Your task to perform on an android device: Find coffee shops on Maps Image 0: 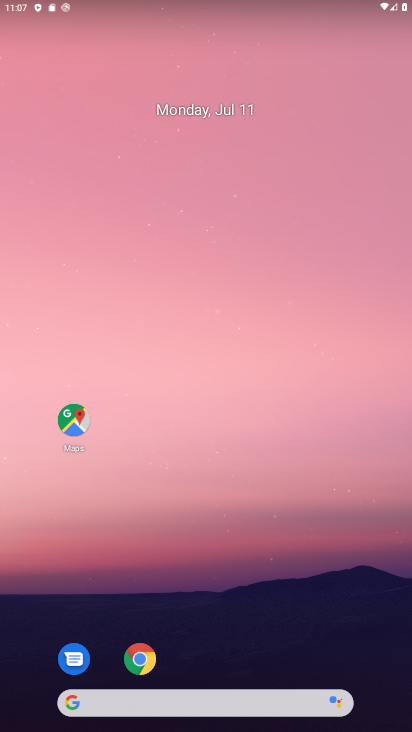
Step 0: drag from (284, 638) to (164, 3)
Your task to perform on an android device: Find coffee shops on Maps Image 1: 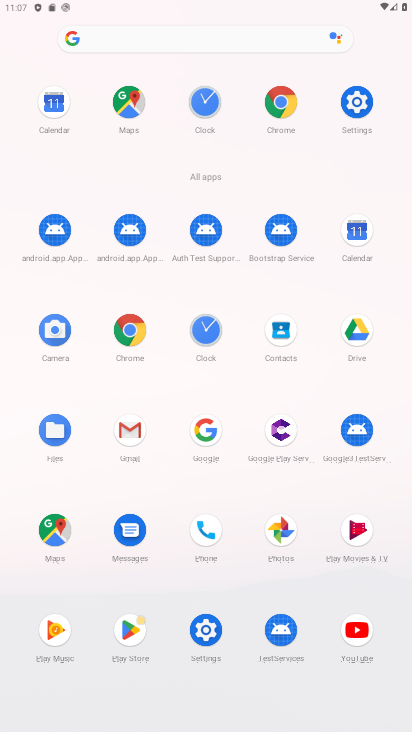
Step 1: click (54, 531)
Your task to perform on an android device: Find coffee shops on Maps Image 2: 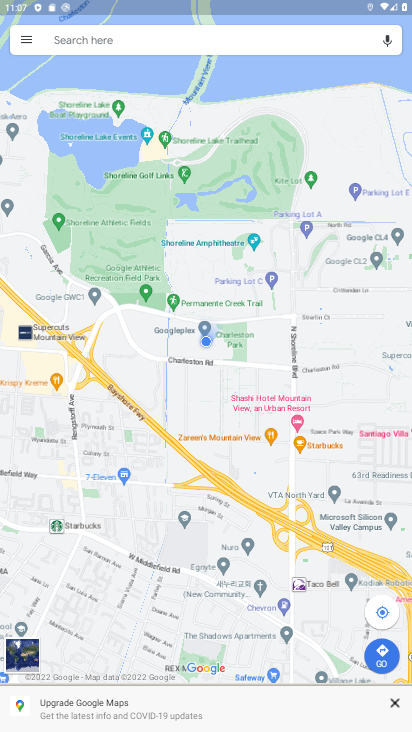
Step 2: click (212, 41)
Your task to perform on an android device: Find coffee shops on Maps Image 3: 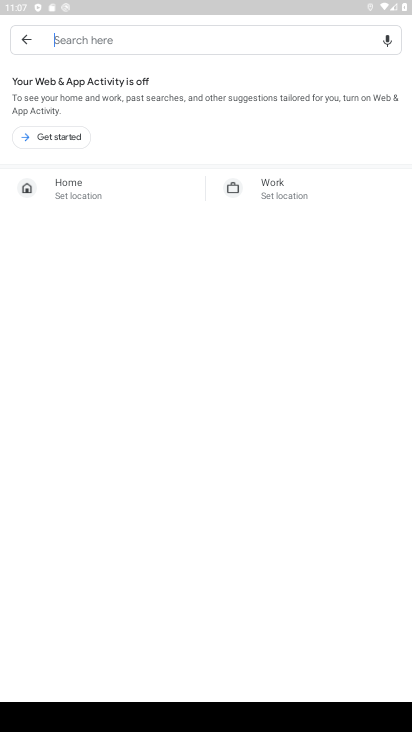
Step 3: type "coffee"
Your task to perform on an android device: Find coffee shops on Maps Image 4: 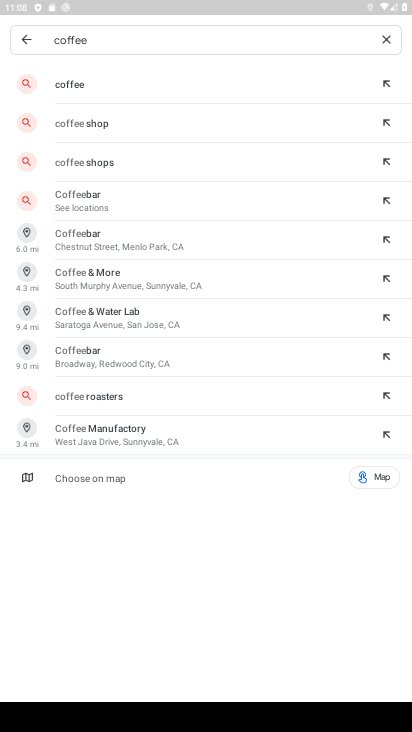
Step 4: press enter
Your task to perform on an android device: Find coffee shops on Maps Image 5: 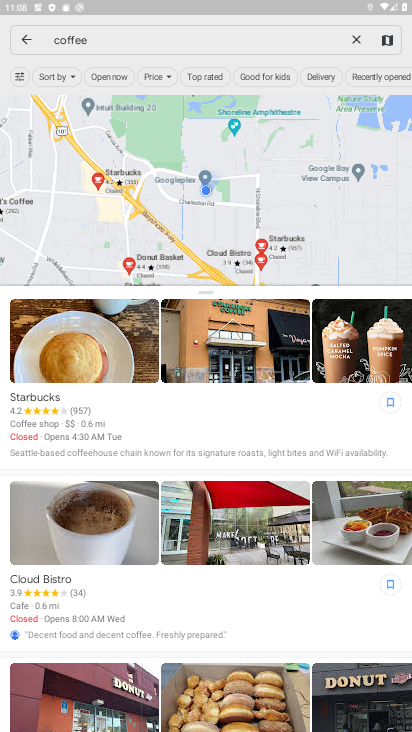
Step 5: task complete